Your task to perform on an android device: Open calendar and show me the third week of next month Image 0: 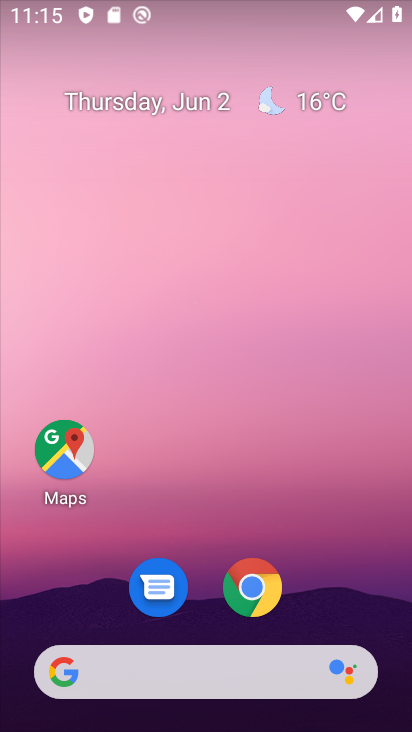
Step 0: drag from (209, 623) to (176, 60)
Your task to perform on an android device: Open calendar and show me the third week of next month Image 1: 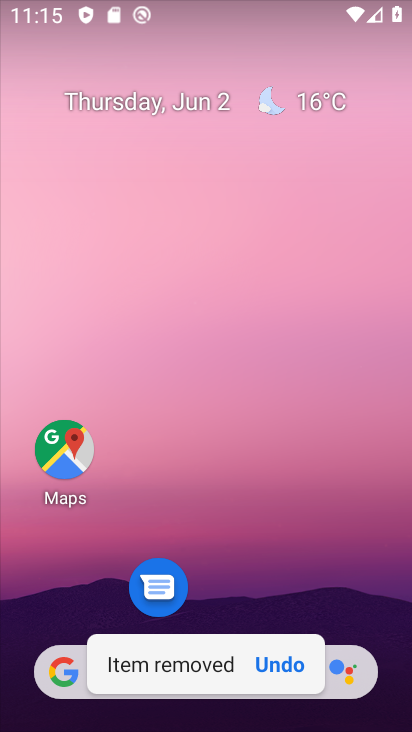
Step 1: drag from (221, 606) to (304, 47)
Your task to perform on an android device: Open calendar and show me the third week of next month Image 2: 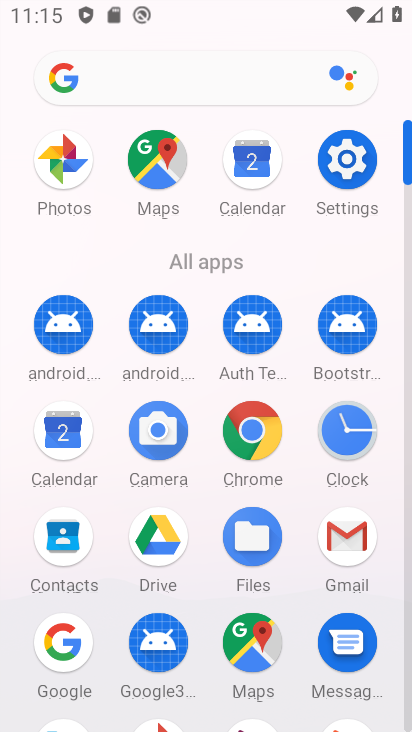
Step 2: click (69, 461)
Your task to perform on an android device: Open calendar and show me the third week of next month Image 3: 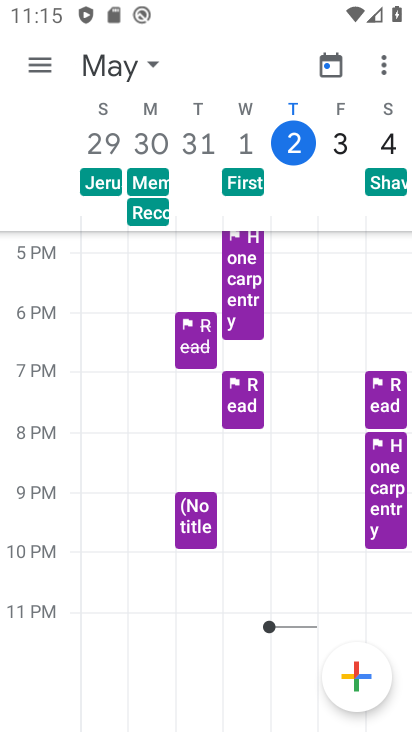
Step 3: task complete